Your task to perform on an android device: turn on sleep mode Image 0: 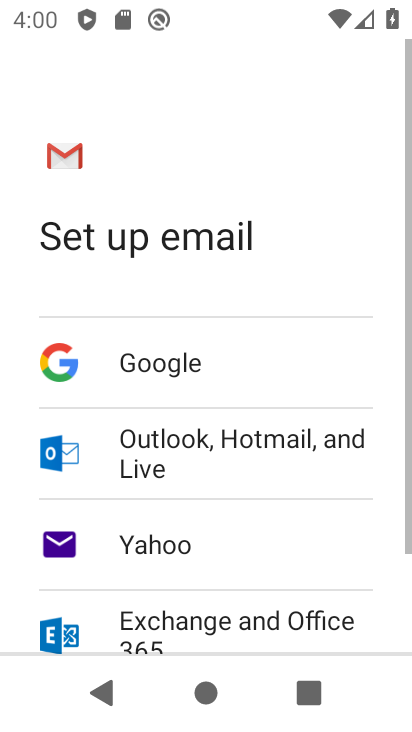
Step 0: press home button
Your task to perform on an android device: turn on sleep mode Image 1: 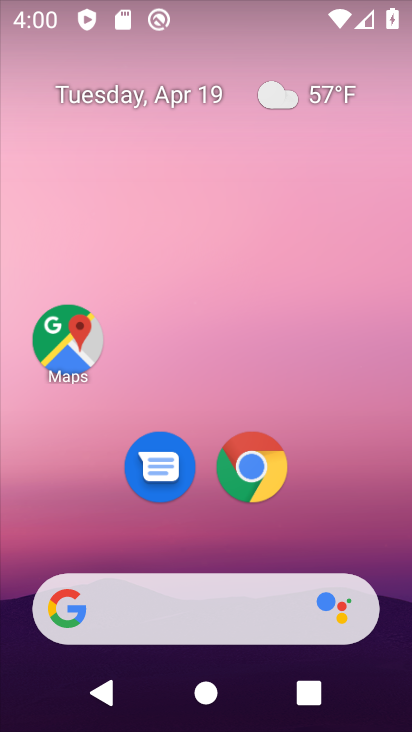
Step 1: drag from (182, 497) to (179, 291)
Your task to perform on an android device: turn on sleep mode Image 2: 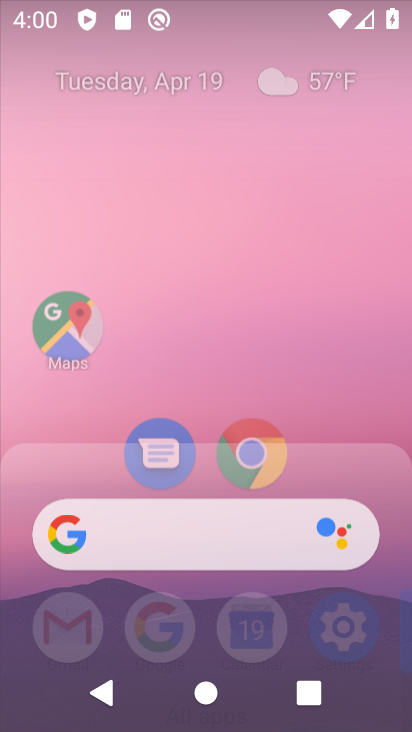
Step 2: drag from (206, 127) to (217, 84)
Your task to perform on an android device: turn on sleep mode Image 3: 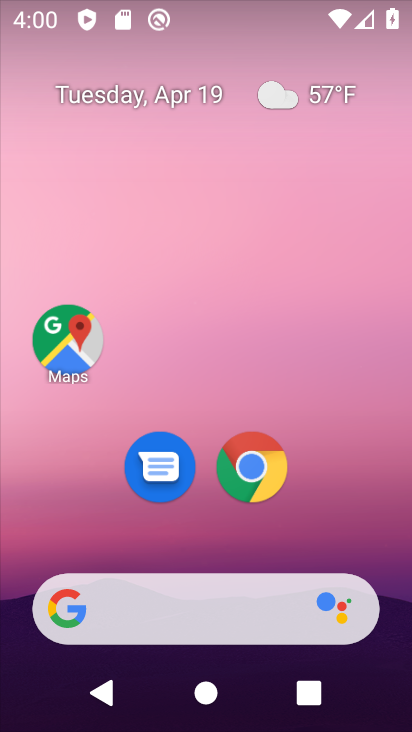
Step 3: drag from (231, 583) to (265, 96)
Your task to perform on an android device: turn on sleep mode Image 4: 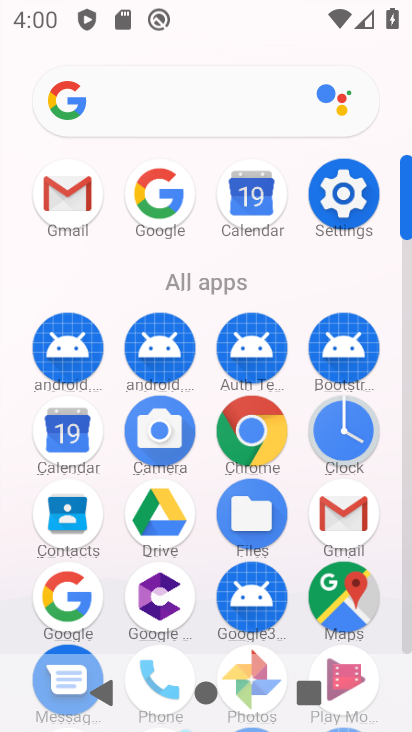
Step 4: click (354, 219)
Your task to perform on an android device: turn on sleep mode Image 5: 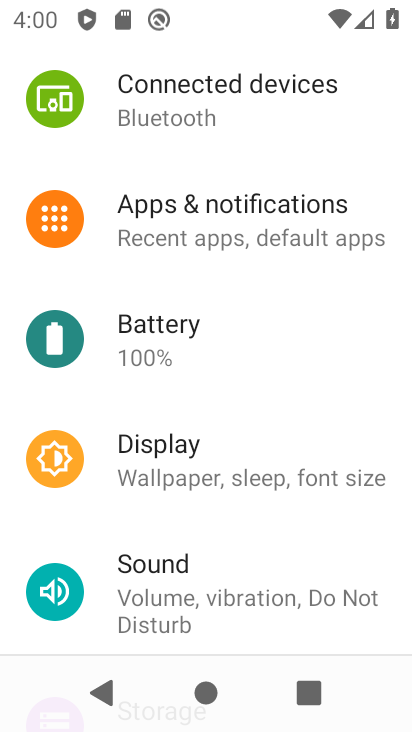
Step 5: drag from (205, 463) to (207, 277)
Your task to perform on an android device: turn on sleep mode Image 6: 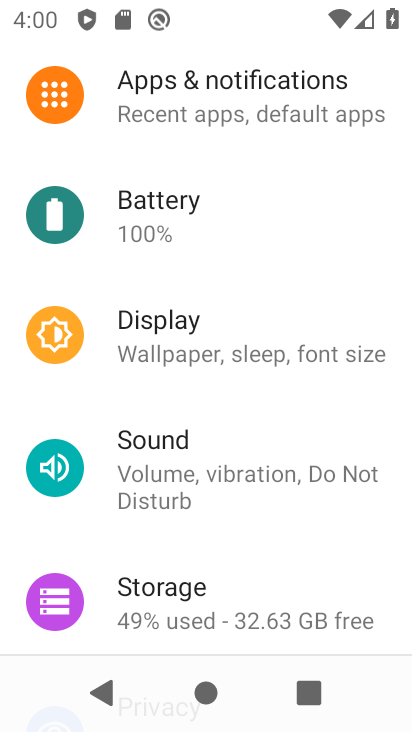
Step 6: click (221, 307)
Your task to perform on an android device: turn on sleep mode Image 7: 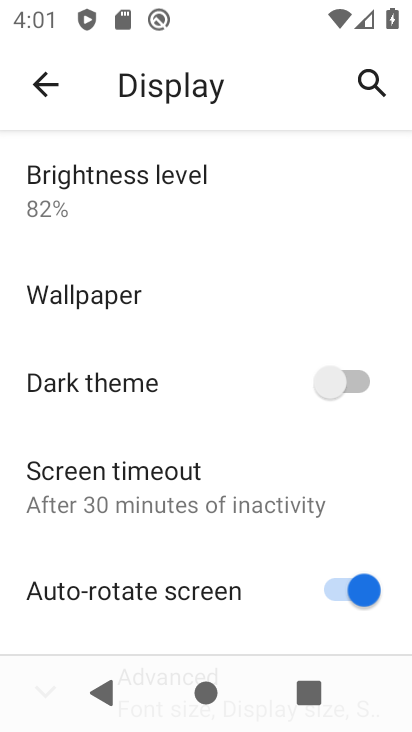
Step 7: drag from (195, 391) to (195, 168)
Your task to perform on an android device: turn on sleep mode Image 8: 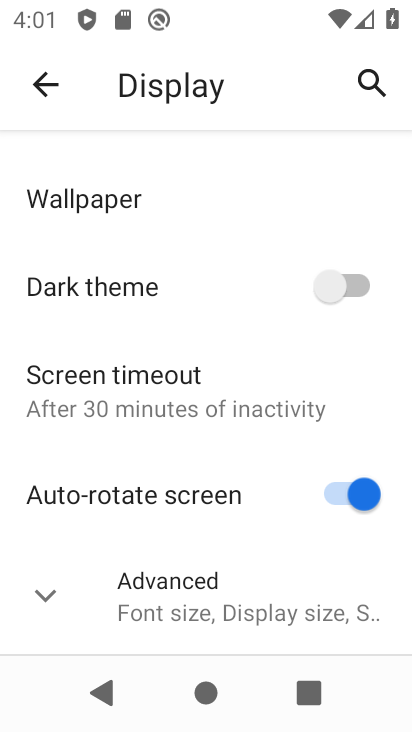
Step 8: click (141, 577)
Your task to perform on an android device: turn on sleep mode Image 9: 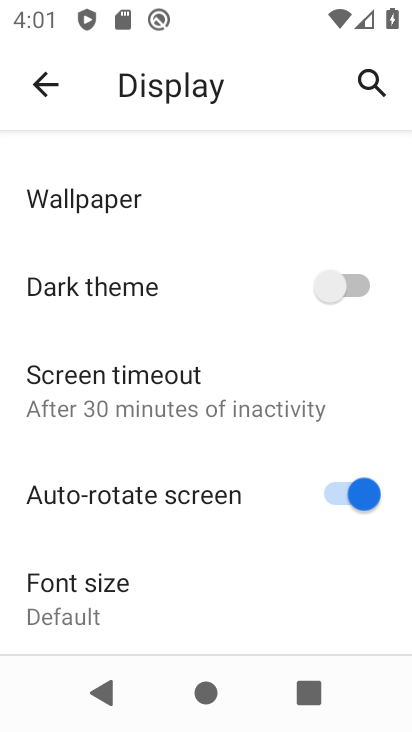
Step 9: task complete